Your task to perform on an android device: Open Google Image 0: 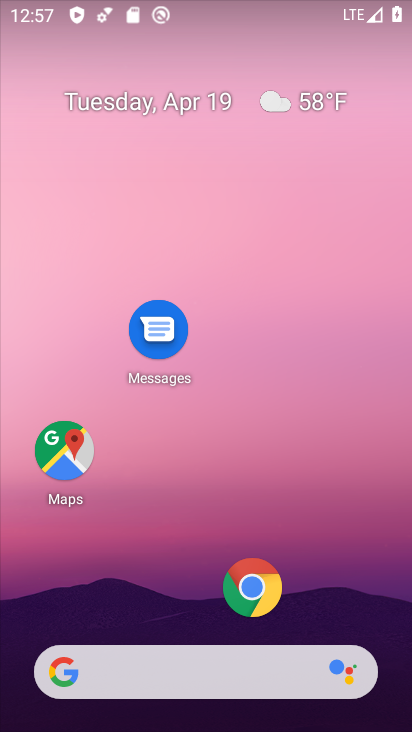
Step 0: drag from (222, 402) to (235, 198)
Your task to perform on an android device: Open Google Image 1: 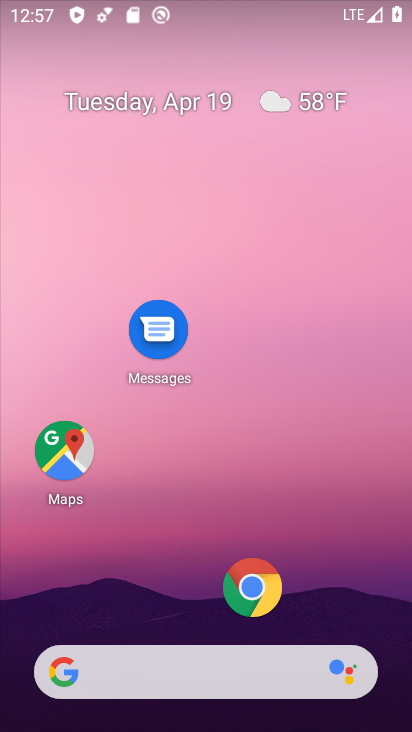
Step 1: drag from (176, 566) to (178, 160)
Your task to perform on an android device: Open Google Image 2: 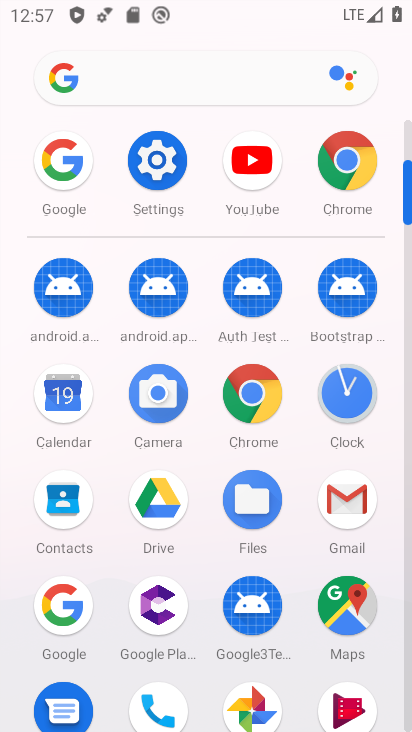
Step 2: click (64, 161)
Your task to perform on an android device: Open Google Image 3: 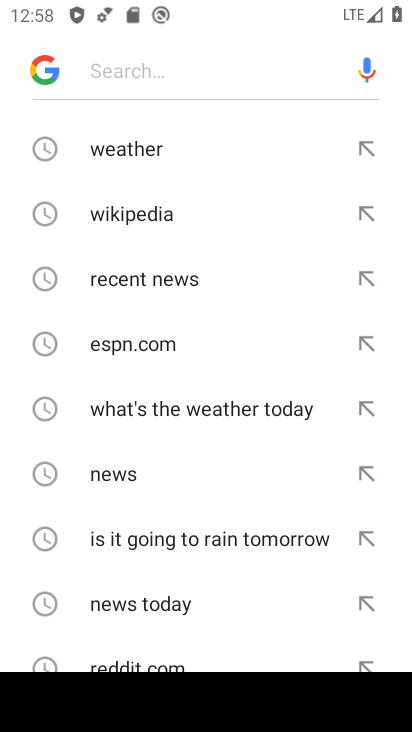
Step 3: task complete